Your task to perform on an android device: open sync settings in chrome Image 0: 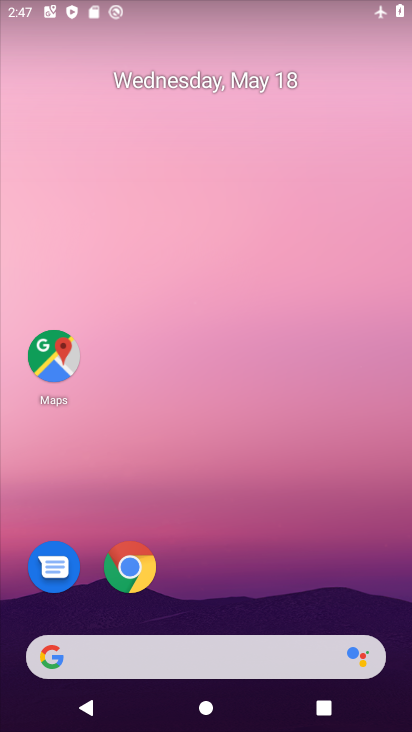
Step 0: click (113, 559)
Your task to perform on an android device: open sync settings in chrome Image 1: 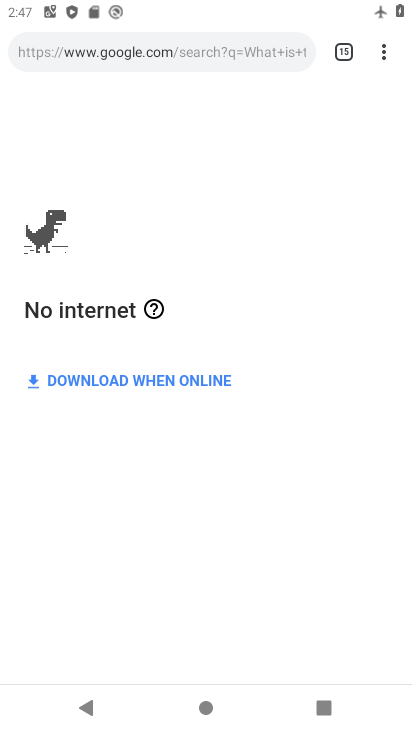
Step 1: click (378, 41)
Your task to perform on an android device: open sync settings in chrome Image 2: 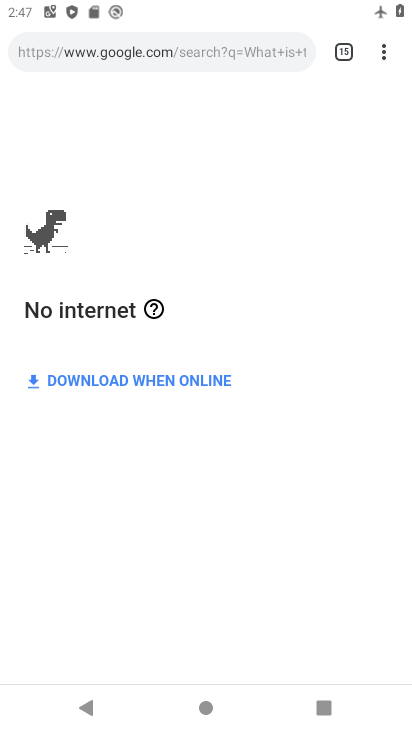
Step 2: click (376, 51)
Your task to perform on an android device: open sync settings in chrome Image 3: 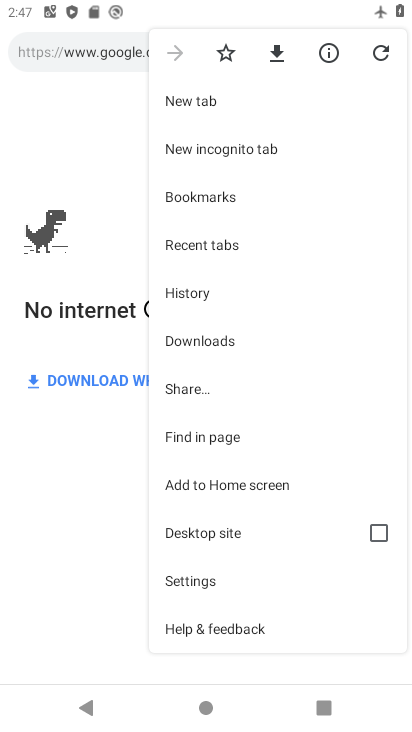
Step 3: click (226, 574)
Your task to perform on an android device: open sync settings in chrome Image 4: 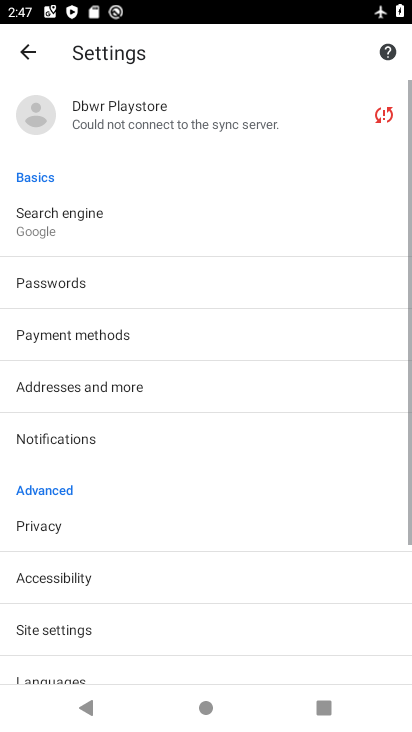
Step 4: click (119, 219)
Your task to perform on an android device: open sync settings in chrome Image 5: 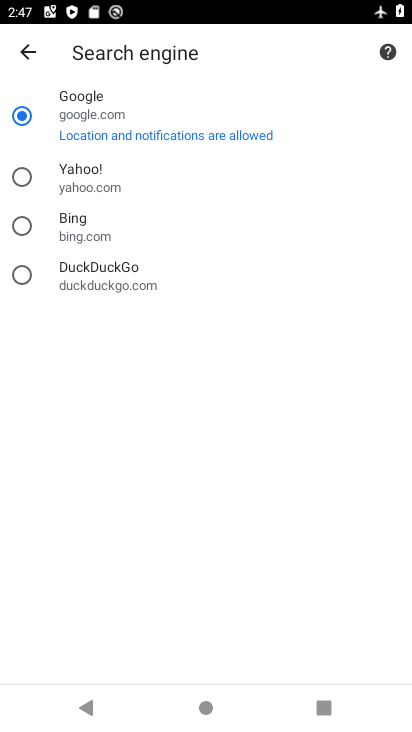
Step 5: click (41, 57)
Your task to perform on an android device: open sync settings in chrome Image 6: 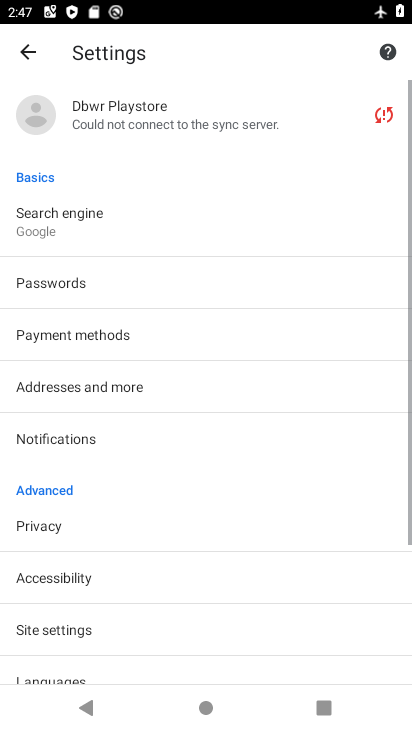
Step 6: click (175, 112)
Your task to perform on an android device: open sync settings in chrome Image 7: 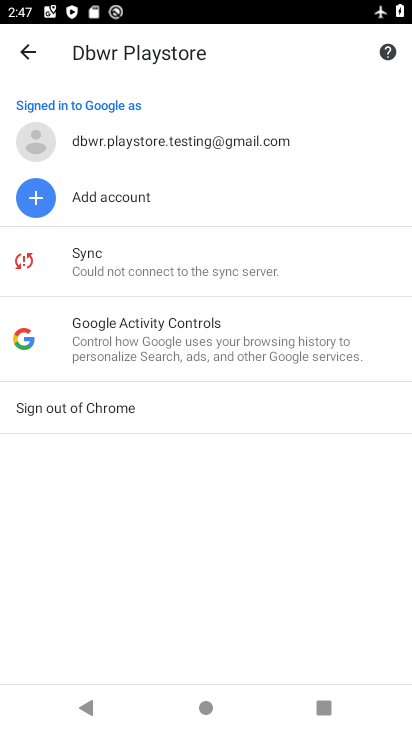
Step 7: task complete